Your task to perform on an android device: Find coffee shops on Maps Image 0: 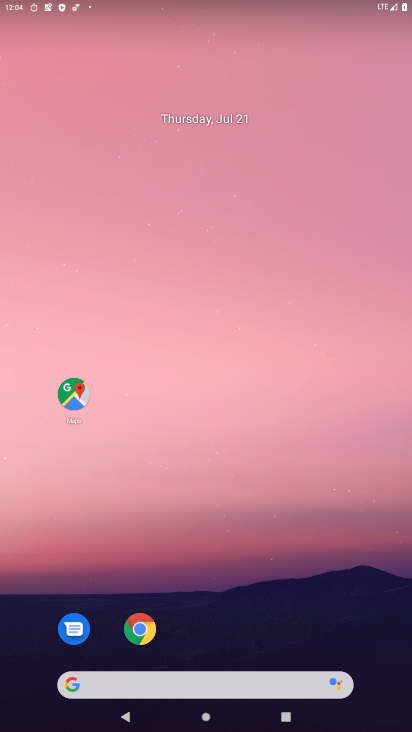
Step 0: drag from (154, 620) to (157, 186)
Your task to perform on an android device: Find coffee shops on Maps Image 1: 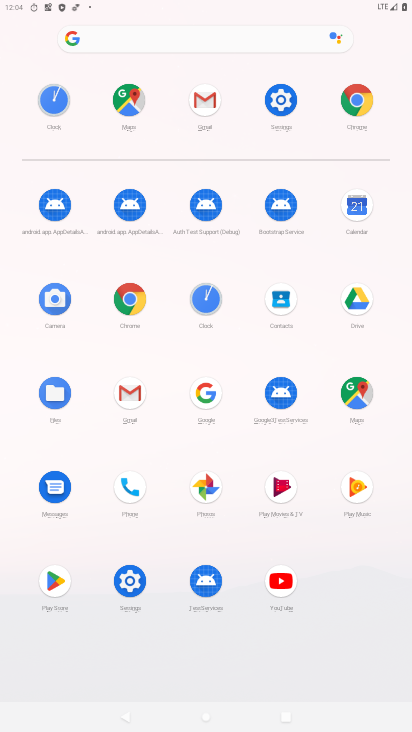
Step 1: click (357, 388)
Your task to perform on an android device: Find coffee shops on Maps Image 2: 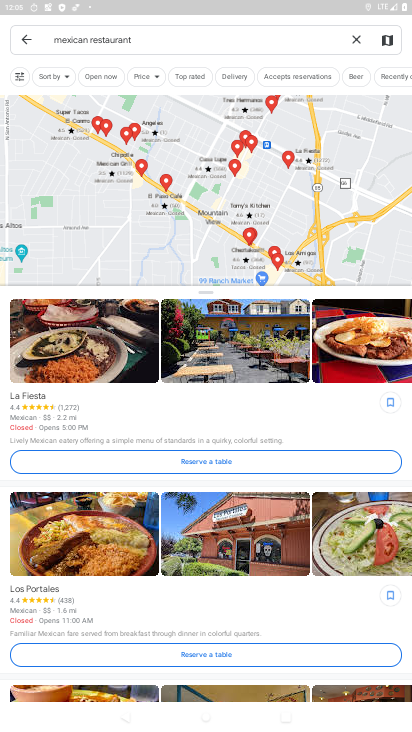
Step 2: click (356, 41)
Your task to perform on an android device: Find coffee shops on Maps Image 3: 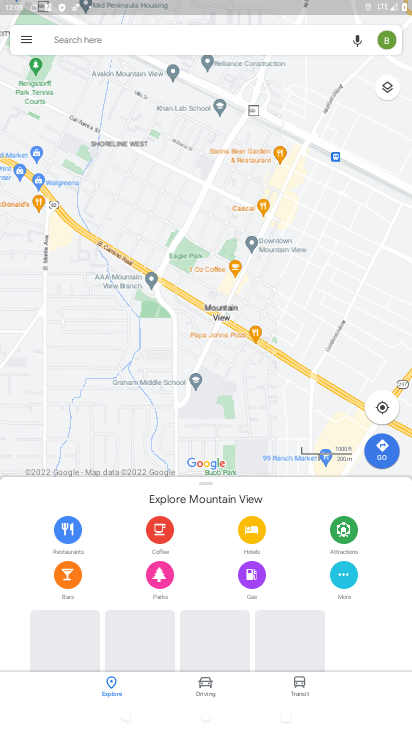
Step 3: click (238, 37)
Your task to perform on an android device: Find coffee shops on Maps Image 4: 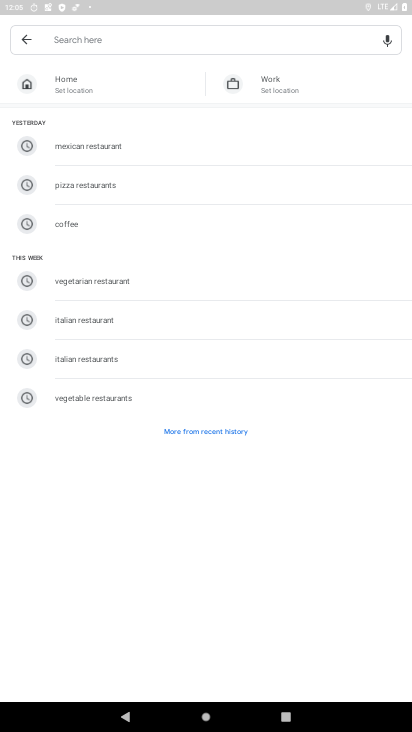
Step 4: type "coffee shop"
Your task to perform on an android device: Find coffee shops on Maps Image 5: 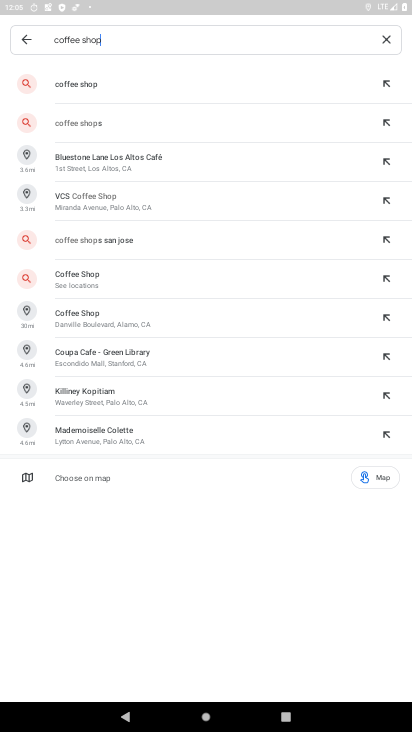
Step 5: click (139, 77)
Your task to perform on an android device: Find coffee shops on Maps Image 6: 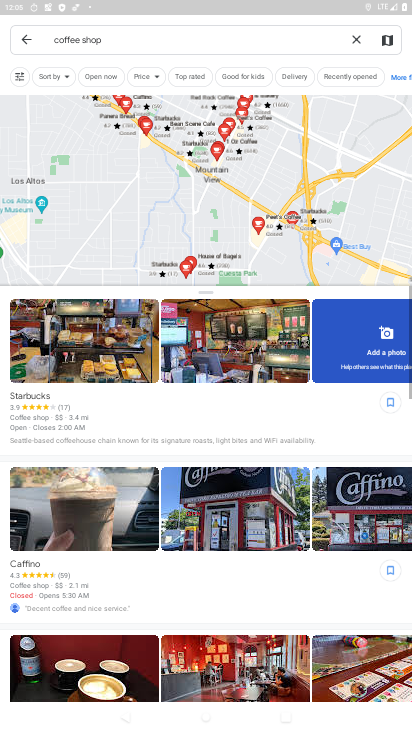
Step 6: task complete